Your task to perform on an android device: turn off smart reply in the gmail app Image 0: 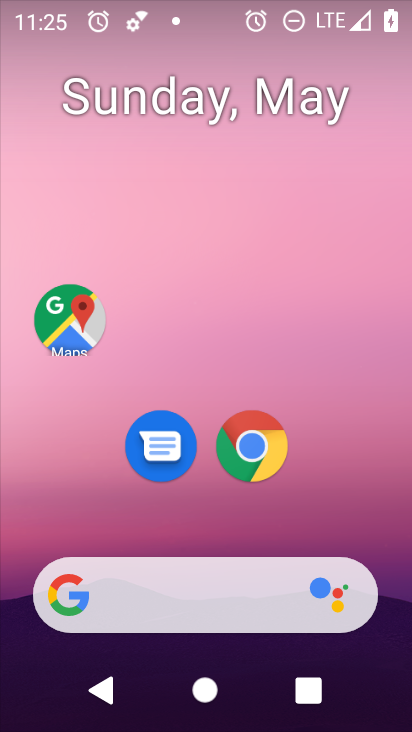
Step 0: drag from (350, 498) to (248, 55)
Your task to perform on an android device: turn off smart reply in the gmail app Image 1: 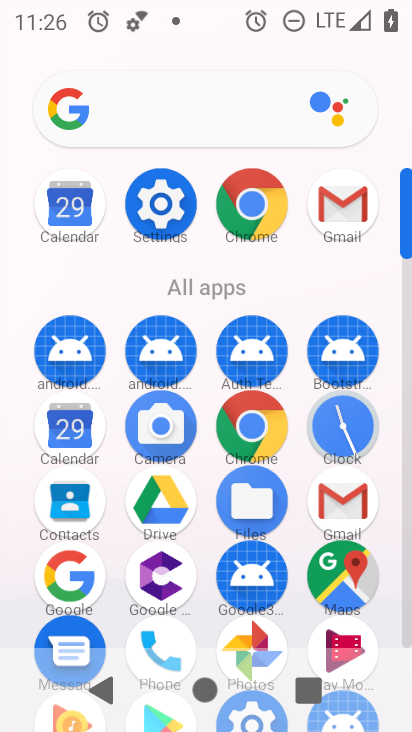
Step 1: drag from (18, 556) to (27, 274)
Your task to perform on an android device: turn off smart reply in the gmail app Image 2: 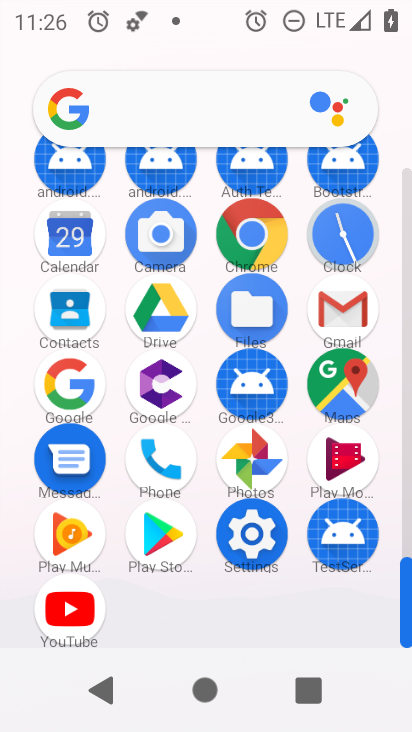
Step 2: click (344, 307)
Your task to perform on an android device: turn off smart reply in the gmail app Image 3: 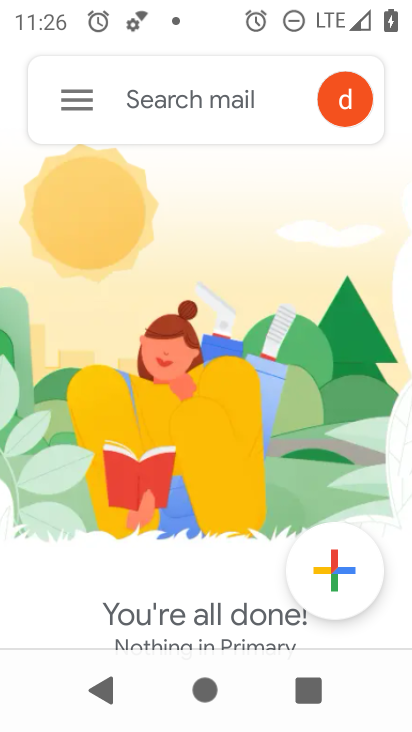
Step 3: click (74, 105)
Your task to perform on an android device: turn off smart reply in the gmail app Image 4: 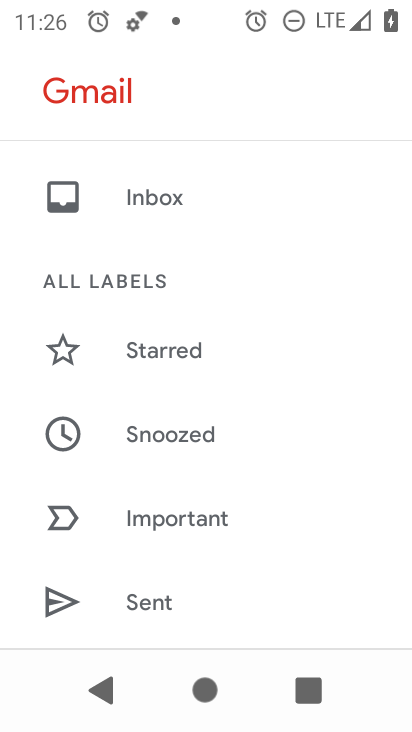
Step 4: drag from (288, 524) to (290, 99)
Your task to perform on an android device: turn off smart reply in the gmail app Image 5: 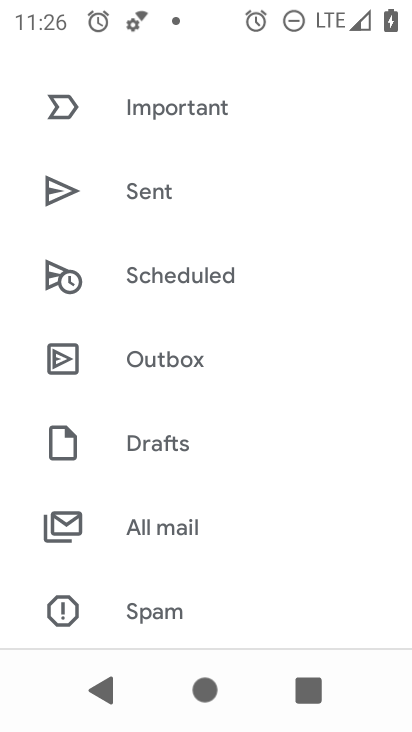
Step 5: drag from (207, 624) to (251, 140)
Your task to perform on an android device: turn off smart reply in the gmail app Image 6: 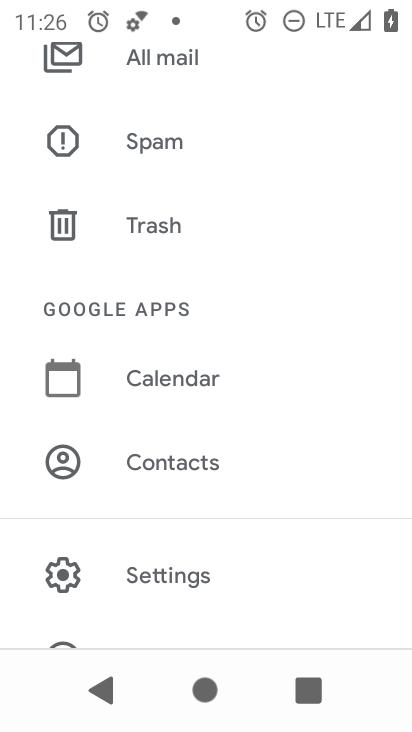
Step 6: drag from (233, 572) to (241, 211)
Your task to perform on an android device: turn off smart reply in the gmail app Image 7: 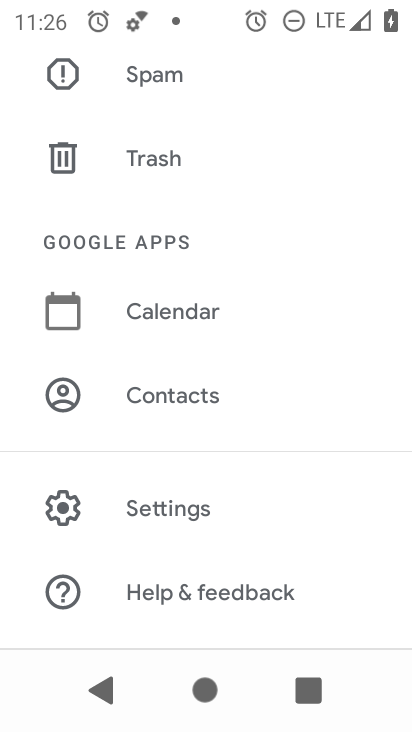
Step 7: click (188, 503)
Your task to perform on an android device: turn off smart reply in the gmail app Image 8: 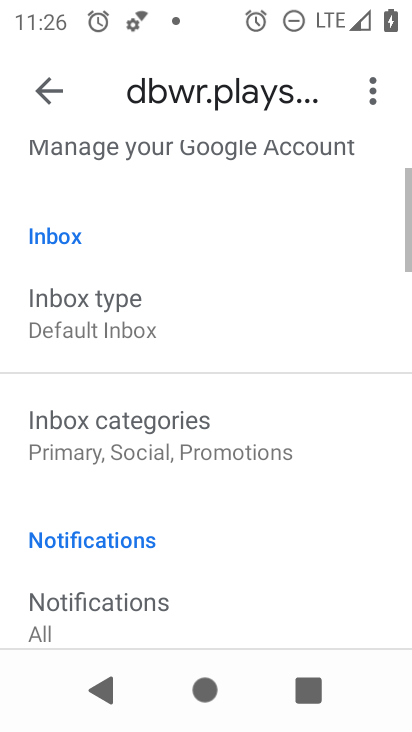
Step 8: drag from (250, 552) to (236, 122)
Your task to perform on an android device: turn off smart reply in the gmail app Image 9: 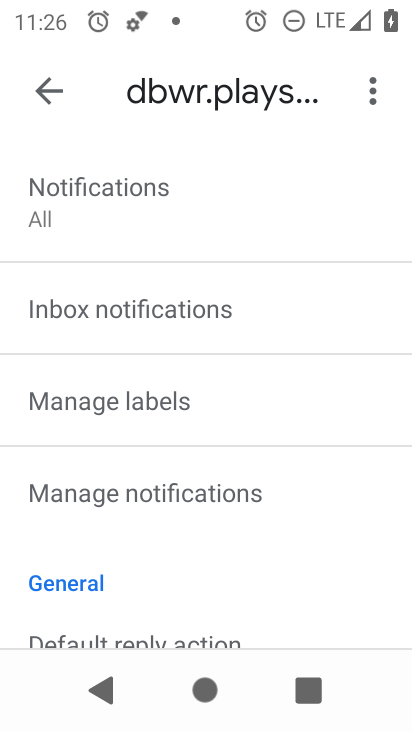
Step 9: drag from (209, 578) to (248, 146)
Your task to perform on an android device: turn off smart reply in the gmail app Image 10: 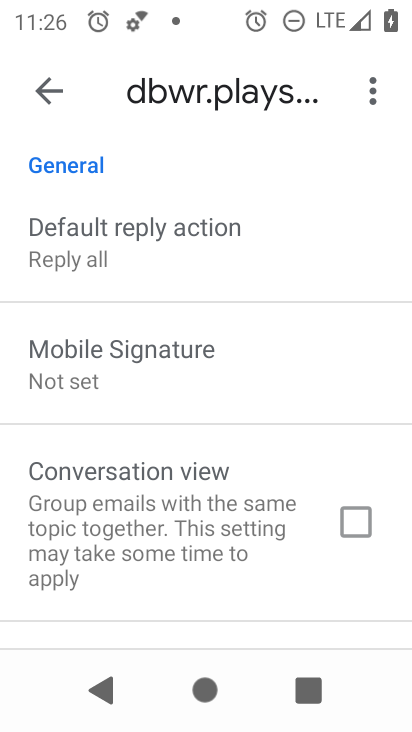
Step 10: drag from (227, 579) to (227, 176)
Your task to perform on an android device: turn off smart reply in the gmail app Image 11: 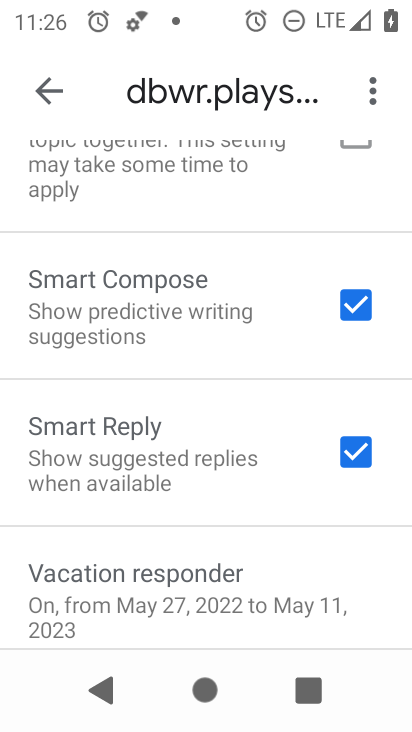
Step 11: click (359, 457)
Your task to perform on an android device: turn off smart reply in the gmail app Image 12: 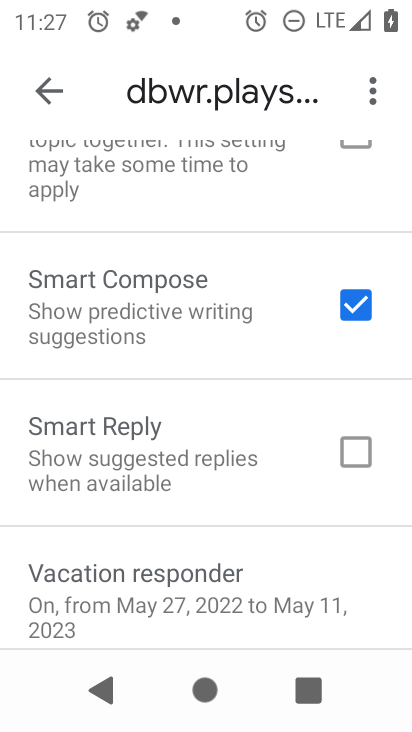
Step 12: task complete